Your task to perform on an android device: Open the stopwatch Image 0: 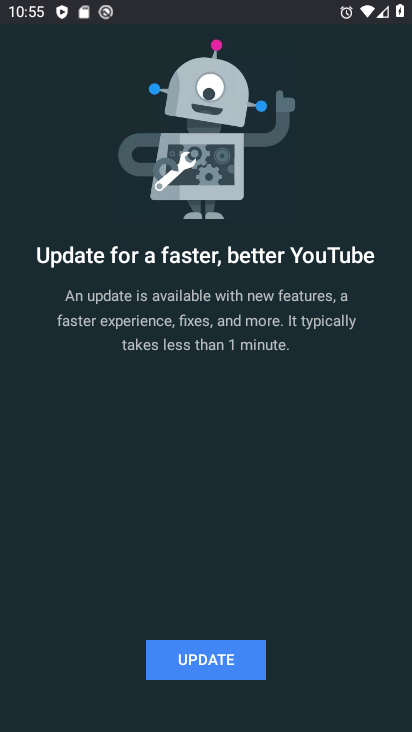
Step 0: press home button
Your task to perform on an android device: Open the stopwatch Image 1: 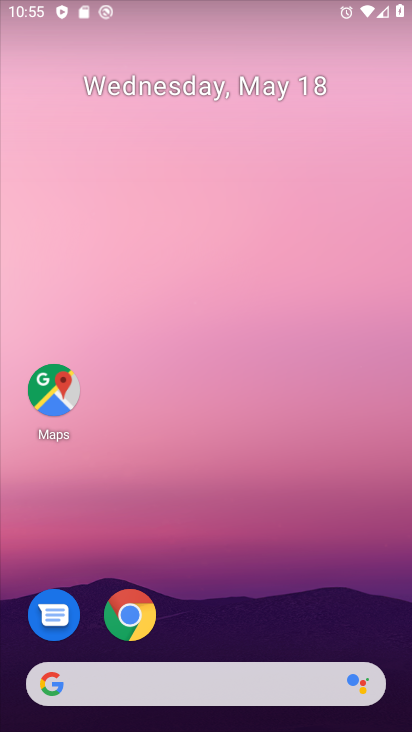
Step 1: drag from (157, 618) to (160, 244)
Your task to perform on an android device: Open the stopwatch Image 2: 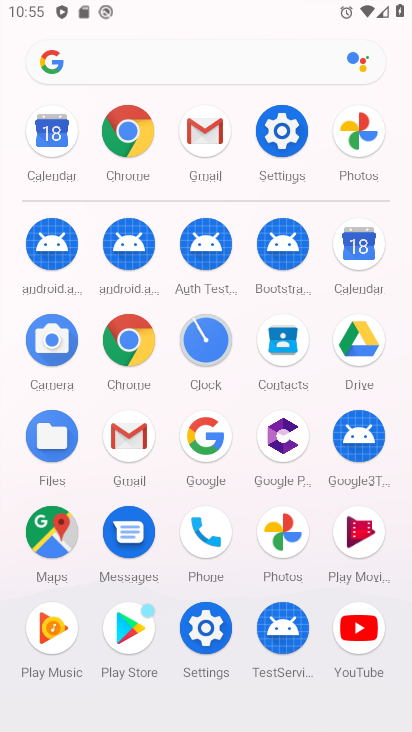
Step 2: click (221, 338)
Your task to perform on an android device: Open the stopwatch Image 3: 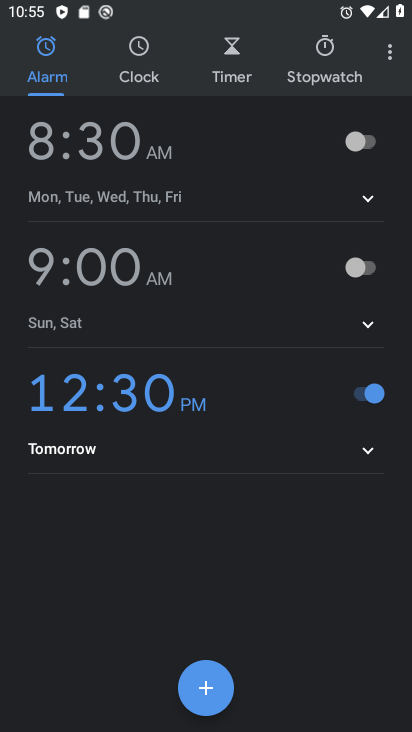
Step 3: click (302, 67)
Your task to perform on an android device: Open the stopwatch Image 4: 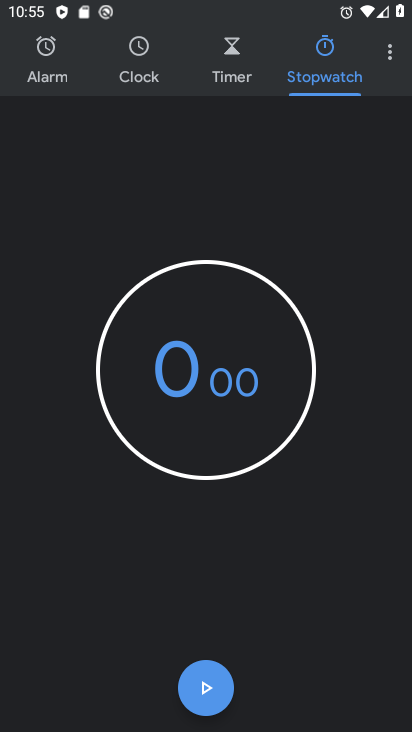
Step 4: task complete